Your task to perform on an android device: set an alarm Image 0: 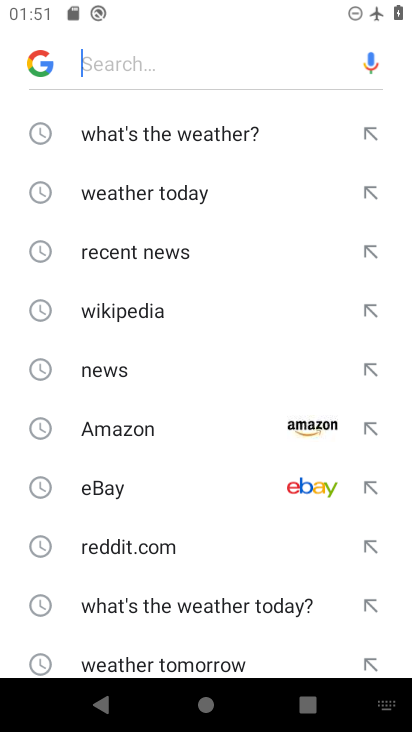
Step 0: press home button
Your task to perform on an android device: set an alarm Image 1: 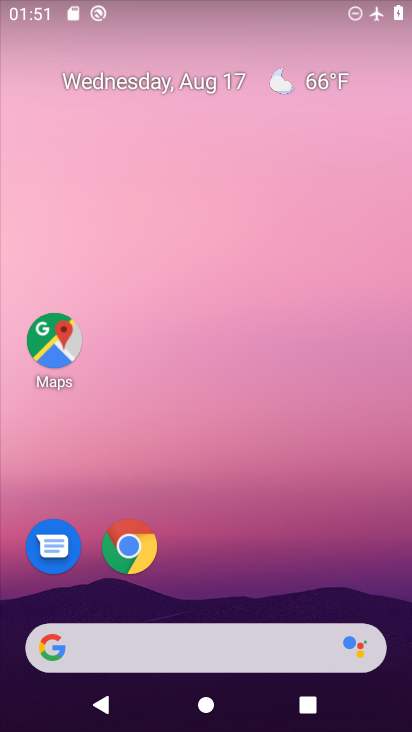
Step 1: drag from (236, 537) to (231, 56)
Your task to perform on an android device: set an alarm Image 2: 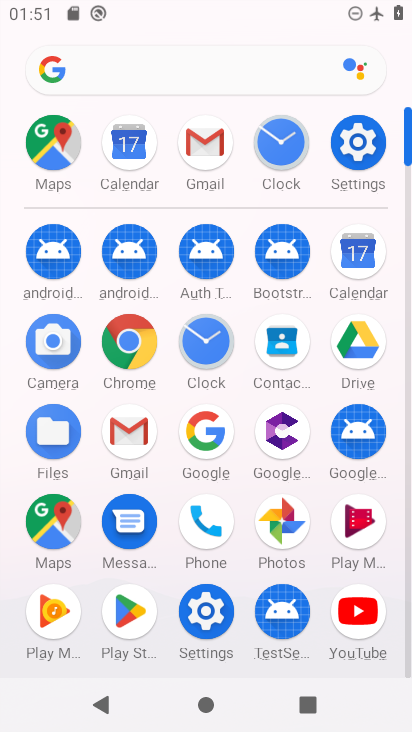
Step 2: click (284, 141)
Your task to perform on an android device: set an alarm Image 3: 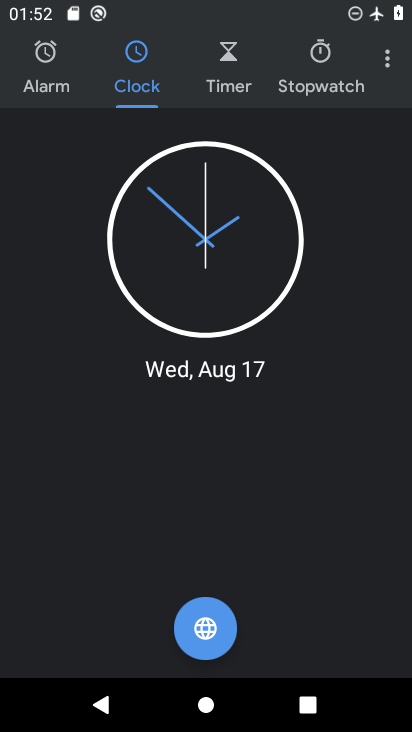
Step 3: click (44, 55)
Your task to perform on an android device: set an alarm Image 4: 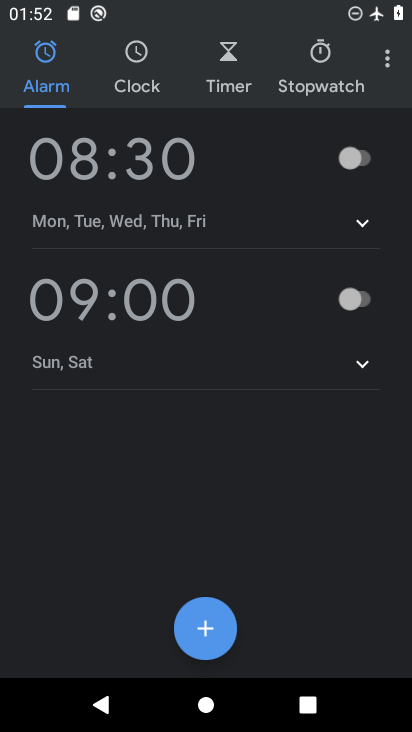
Step 4: click (206, 627)
Your task to perform on an android device: set an alarm Image 5: 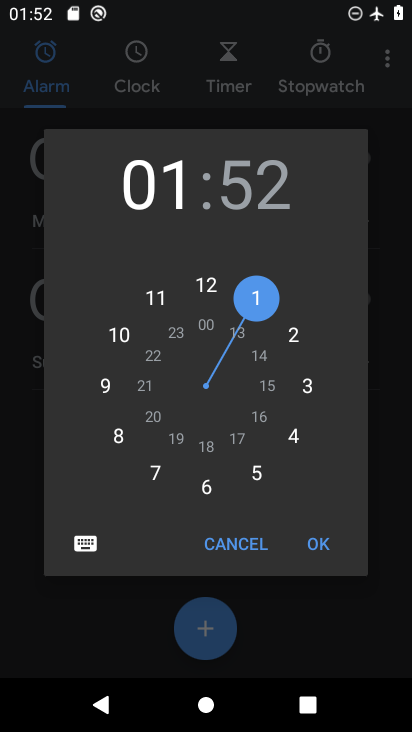
Step 5: click (317, 542)
Your task to perform on an android device: set an alarm Image 6: 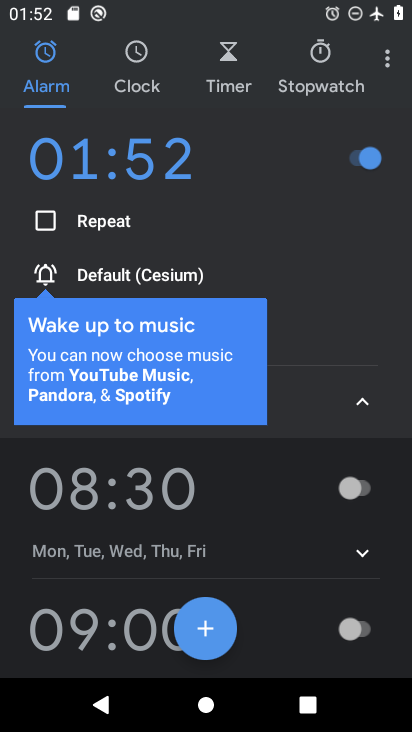
Step 6: task complete